Your task to perform on an android device: delete the emails in spam in the gmail app Image 0: 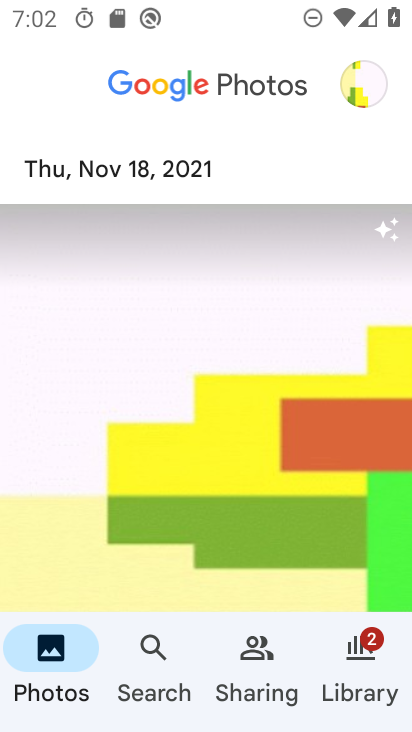
Step 0: press home button
Your task to perform on an android device: delete the emails in spam in the gmail app Image 1: 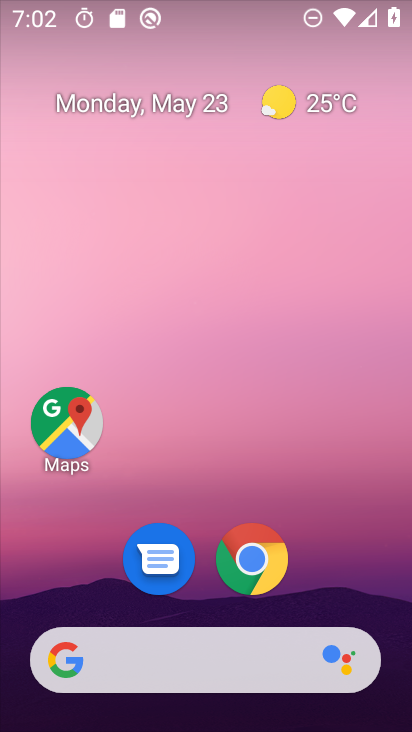
Step 1: drag from (396, 639) to (293, 35)
Your task to perform on an android device: delete the emails in spam in the gmail app Image 2: 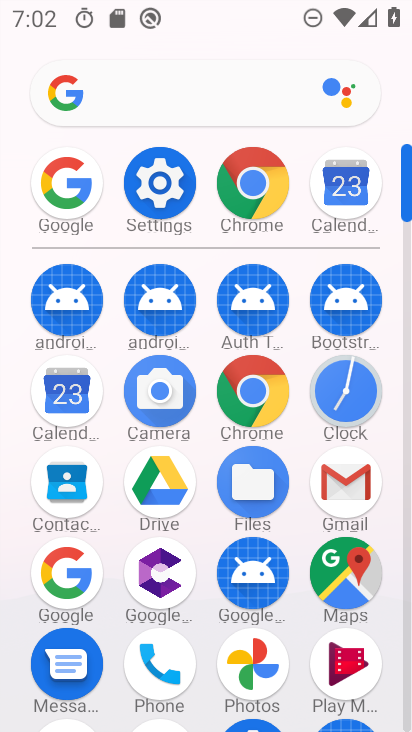
Step 2: click (341, 504)
Your task to perform on an android device: delete the emails in spam in the gmail app Image 3: 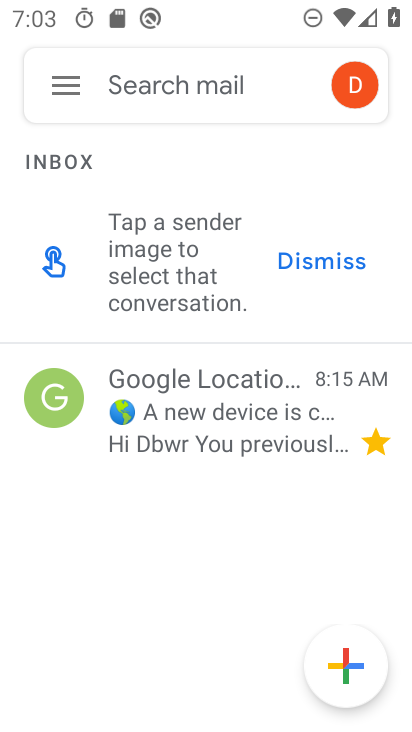
Step 3: click (82, 90)
Your task to perform on an android device: delete the emails in spam in the gmail app Image 4: 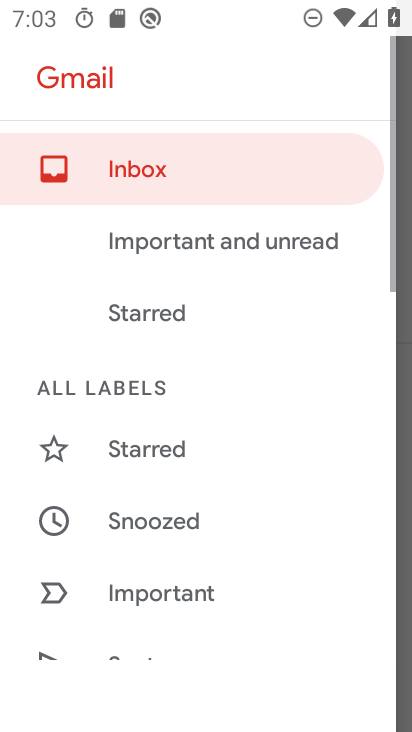
Step 4: drag from (136, 601) to (136, 177)
Your task to perform on an android device: delete the emails in spam in the gmail app Image 5: 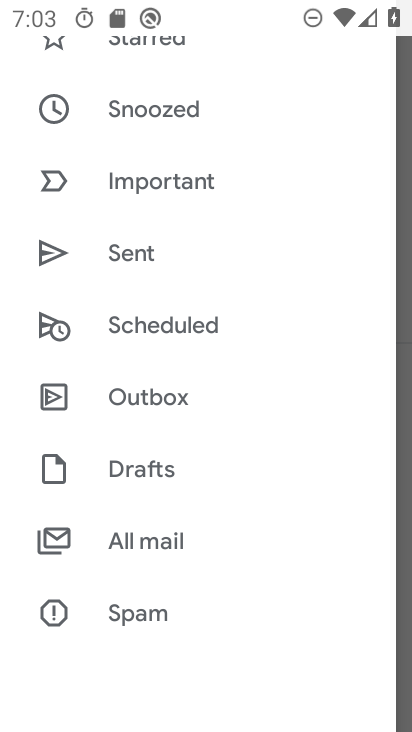
Step 5: click (149, 611)
Your task to perform on an android device: delete the emails in spam in the gmail app Image 6: 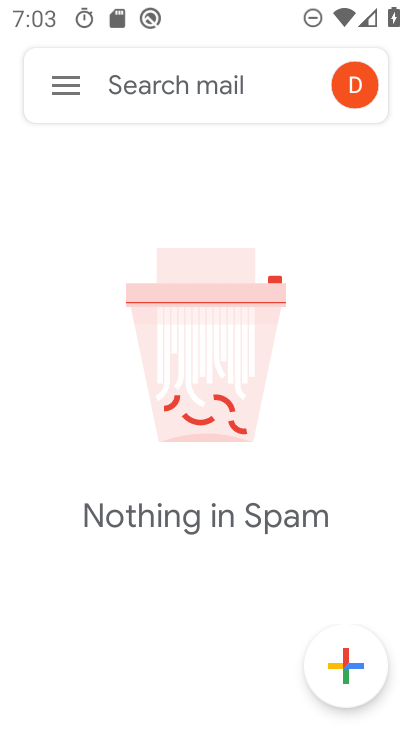
Step 6: task complete